Your task to perform on an android device: turn off smart reply in the gmail app Image 0: 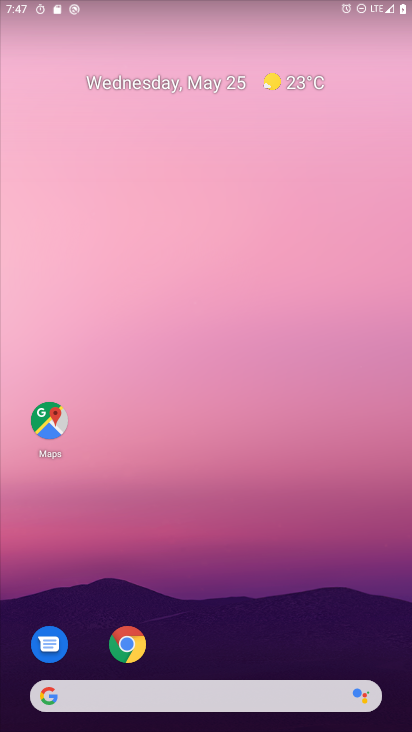
Step 0: drag from (341, 636) to (336, 3)
Your task to perform on an android device: turn off smart reply in the gmail app Image 1: 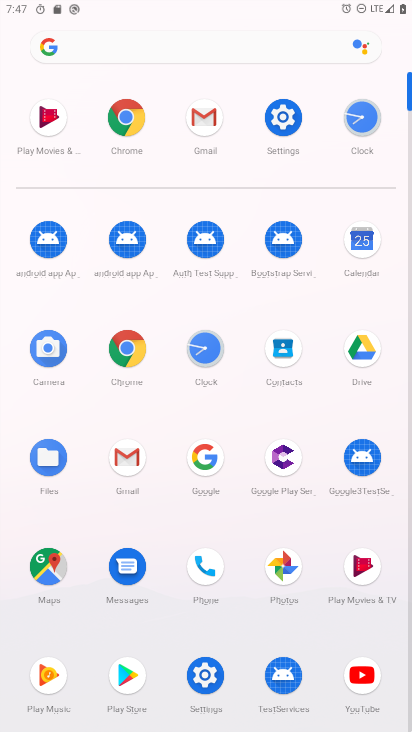
Step 1: click (121, 453)
Your task to perform on an android device: turn off smart reply in the gmail app Image 2: 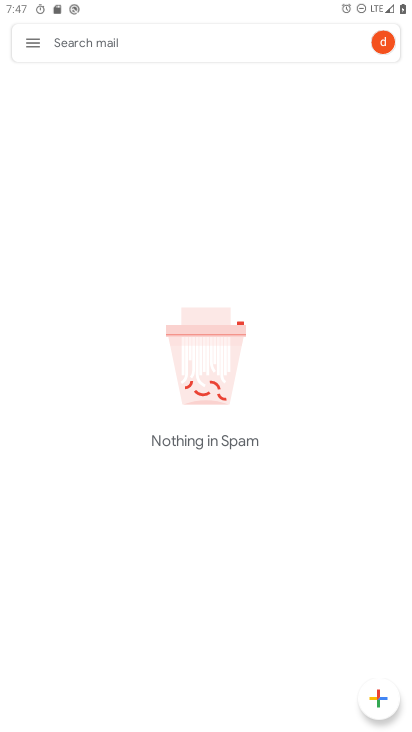
Step 2: click (45, 44)
Your task to perform on an android device: turn off smart reply in the gmail app Image 3: 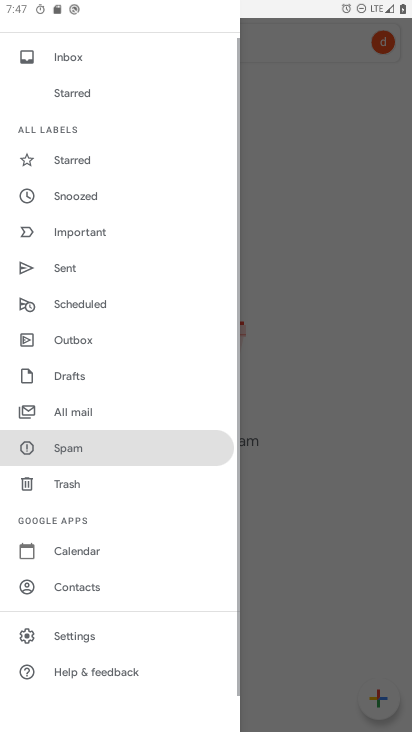
Step 3: click (113, 629)
Your task to perform on an android device: turn off smart reply in the gmail app Image 4: 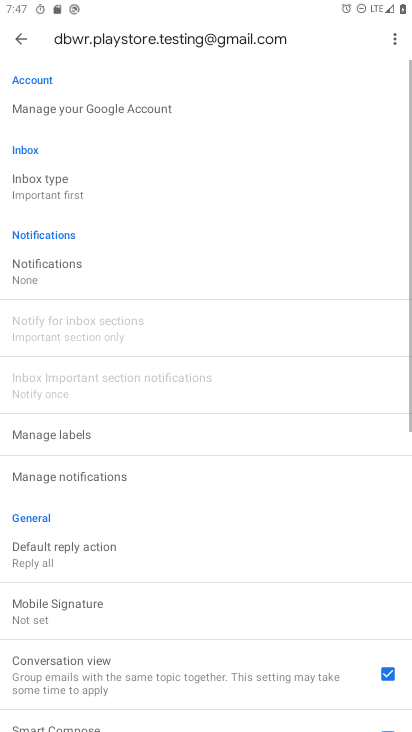
Step 4: drag from (150, 618) to (229, 90)
Your task to perform on an android device: turn off smart reply in the gmail app Image 5: 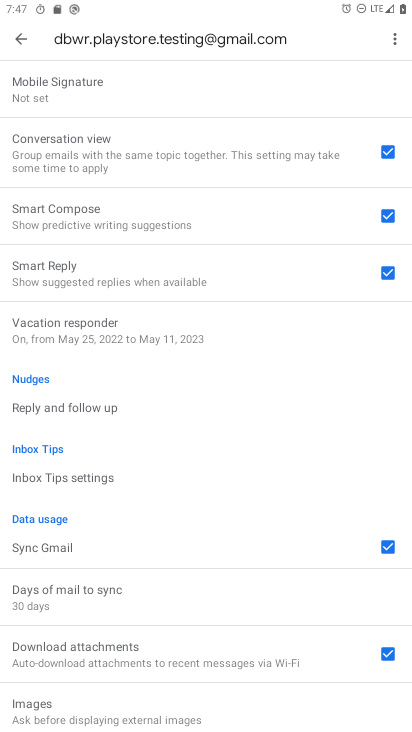
Step 5: click (302, 263)
Your task to perform on an android device: turn off smart reply in the gmail app Image 6: 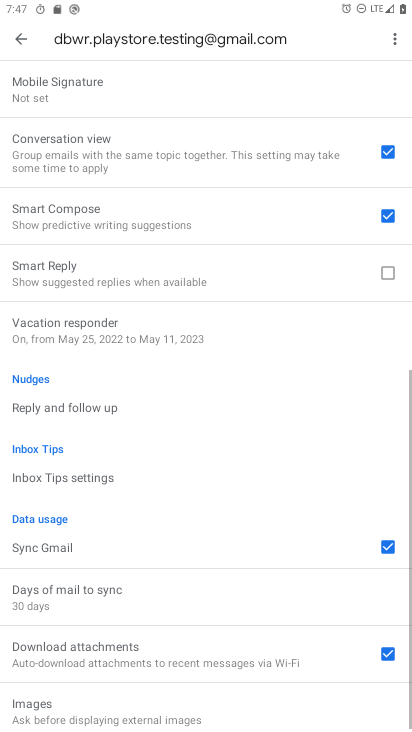
Step 6: task complete